Your task to perform on an android device: Search for Italian restaurants on Maps Image 0: 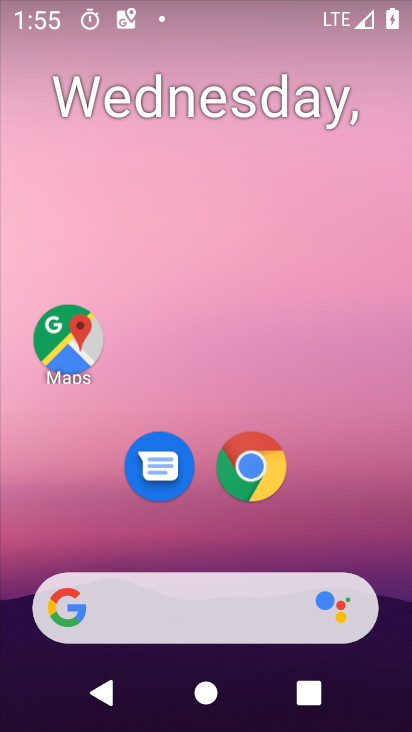
Step 0: click (83, 352)
Your task to perform on an android device: Search for Italian restaurants on Maps Image 1: 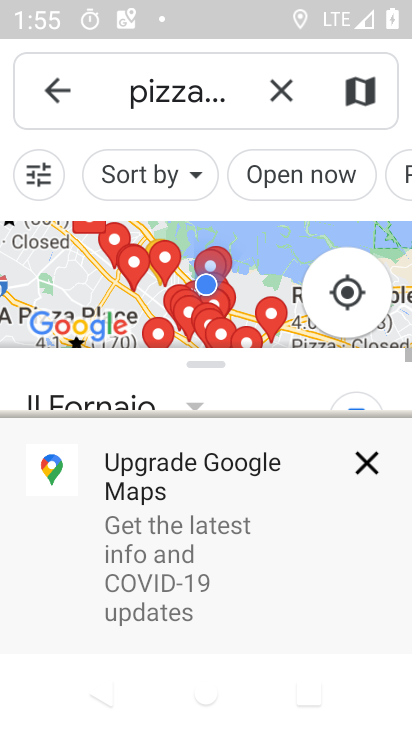
Step 1: click (266, 80)
Your task to perform on an android device: Search for Italian restaurants on Maps Image 2: 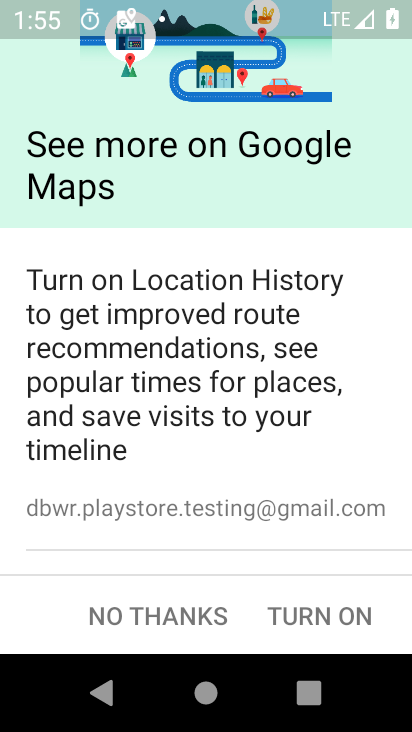
Step 2: press back button
Your task to perform on an android device: Search for Italian restaurants on Maps Image 3: 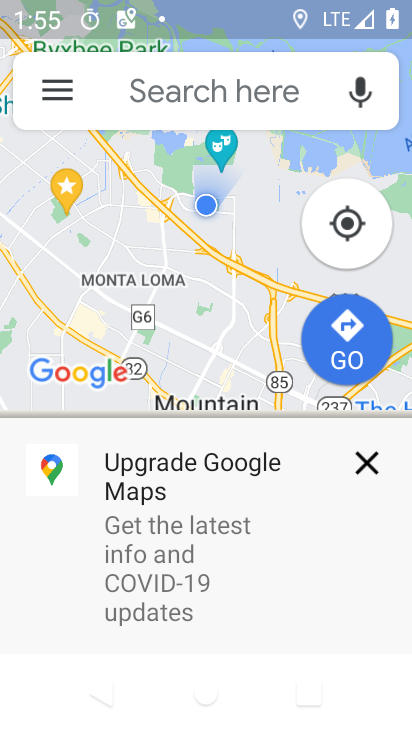
Step 3: click (278, 90)
Your task to perform on an android device: Search for Italian restaurants on Maps Image 4: 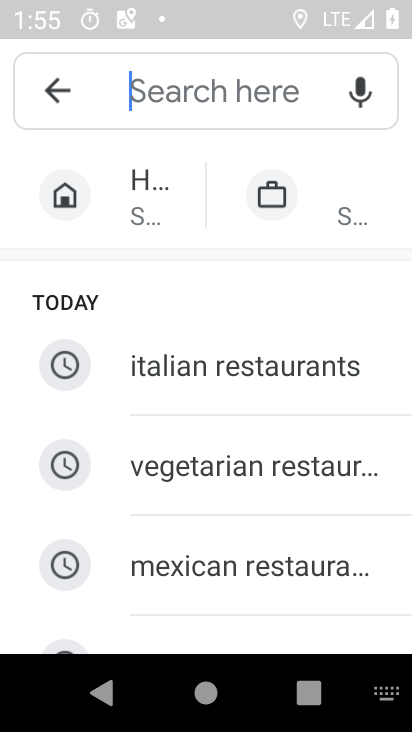
Step 4: click (216, 354)
Your task to perform on an android device: Search for Italian restaurants on Maps Image 5: 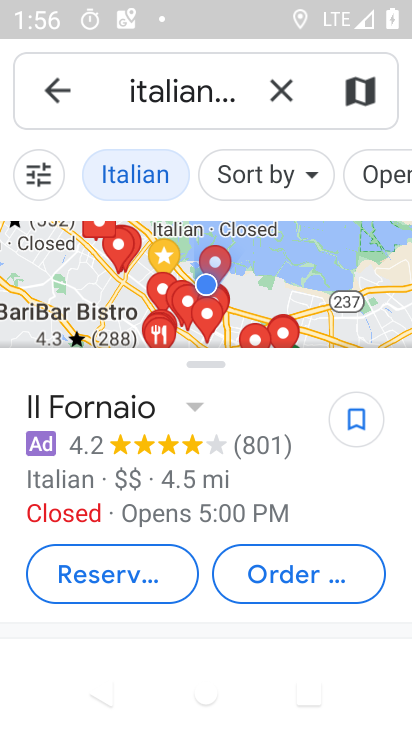
Step 5: task complete